Your task to perform on an android device: refresh tabs in the chrome app Image 0: 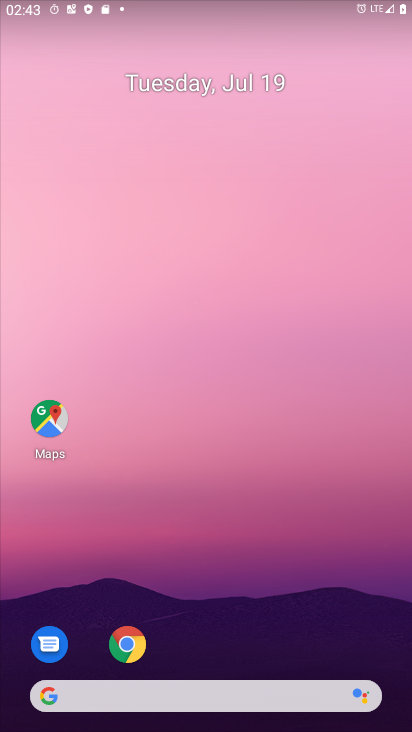
Step 0: click (127, 650)
Your task to perform on an android device: refresh tabs in the chrome app Image 1: 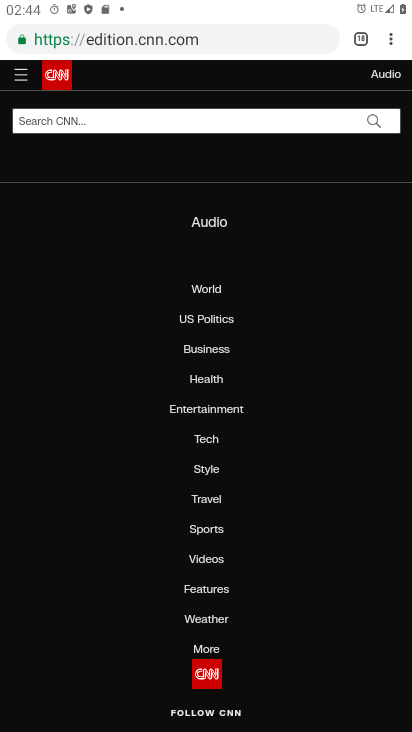
Step 1: click (391, 45)
Your task to perform on an android device: refresh tabs in the chrome app Image 2: 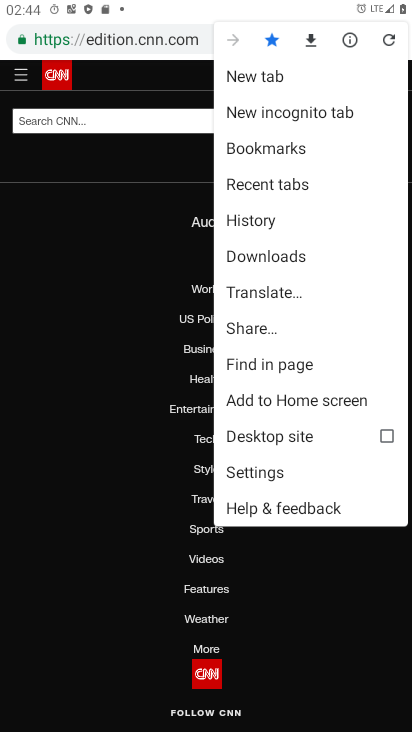
Step 2: click (390, 34)
Your task to perform on an android device: refresh tabs in the chrome app Image 3: 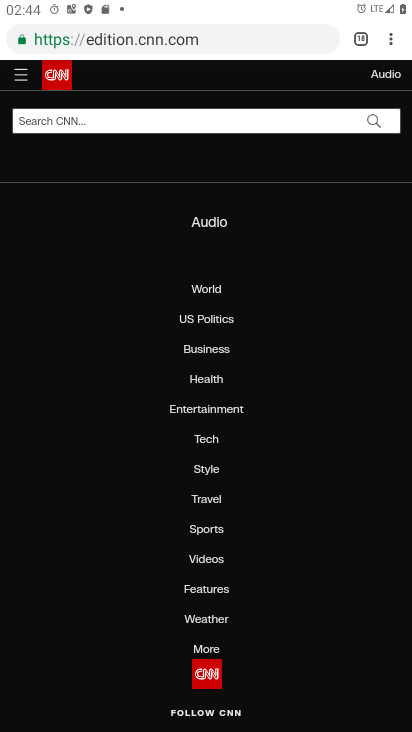
Step 3: task complete